Your task to perform on an android device: add a contact Image 0: 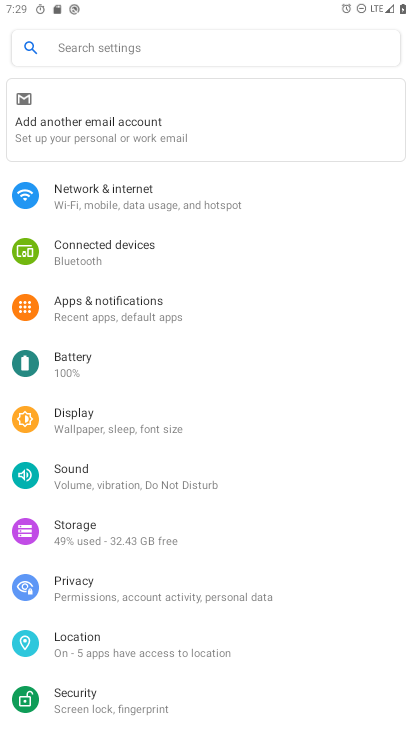
Step 0: press home button
Your task to perform on an android device: add a contact Image 1: 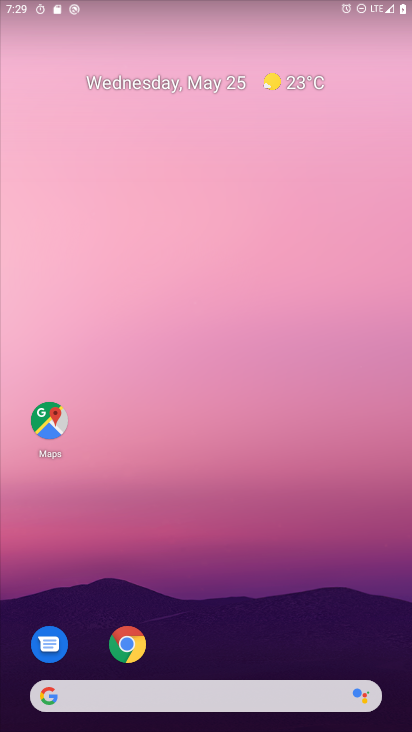
Step 1: drag from (331, 608) to (285, 37)
Your task to perform on an android device: add a contact Image 2: 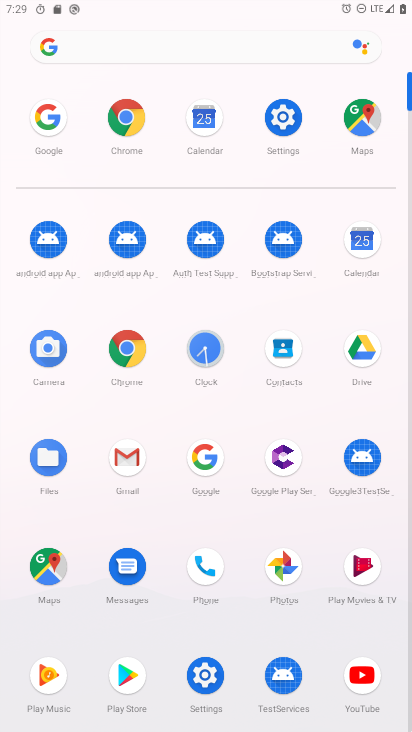
Step 2: click (274, 358)
Your task to perform on an android device: add a contact Image 3: 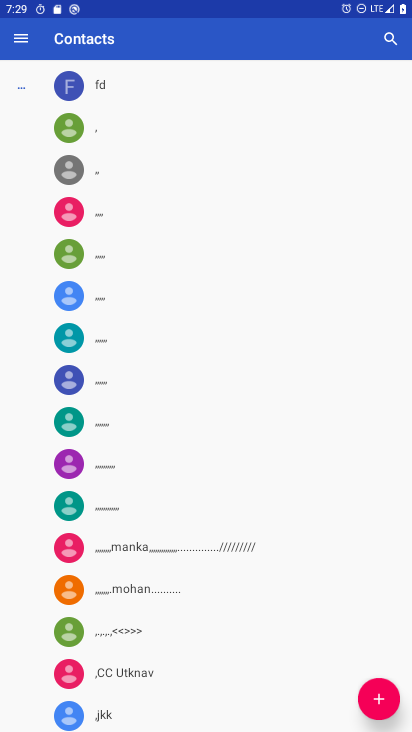
Step 3: click (379, 699)
Your task to perform on an android device: add a contact Image 4: 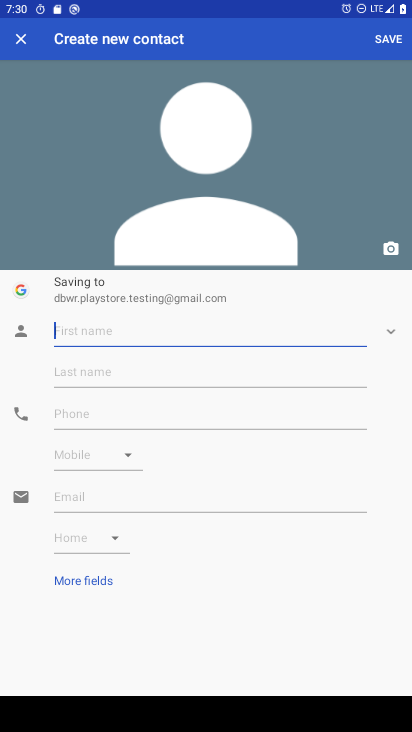
Step 4: type "bisla"
Your task to perform on an android device: add a contact Image 5: 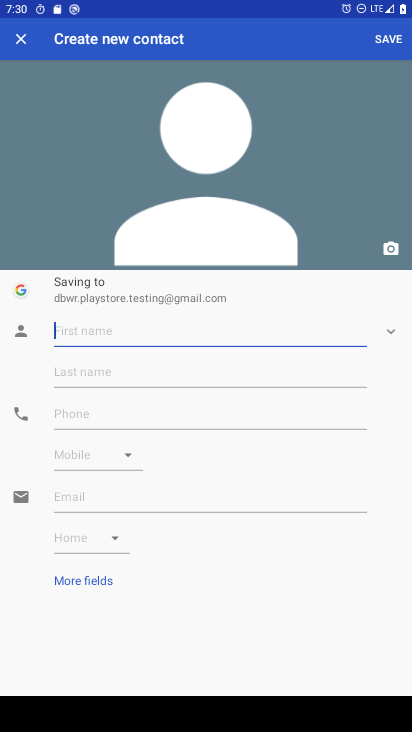
Step 5: click (383, 24)
Your task to perform on an android device: add a contact Image 6: 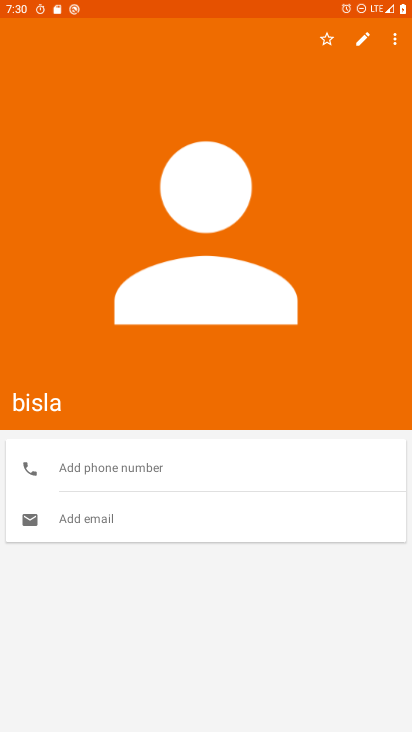
Step 6: task complete